Your task to perform on an android device: turn on priority inbox in the gmail app Image 0: 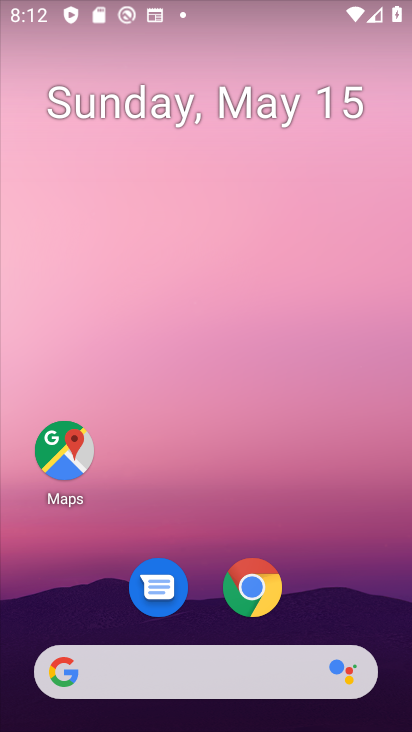
Step 0: drag from (199, 618) to (213, 120)
Your task to perform on an android device: turn on priority inbox in the gmail app Image 1: 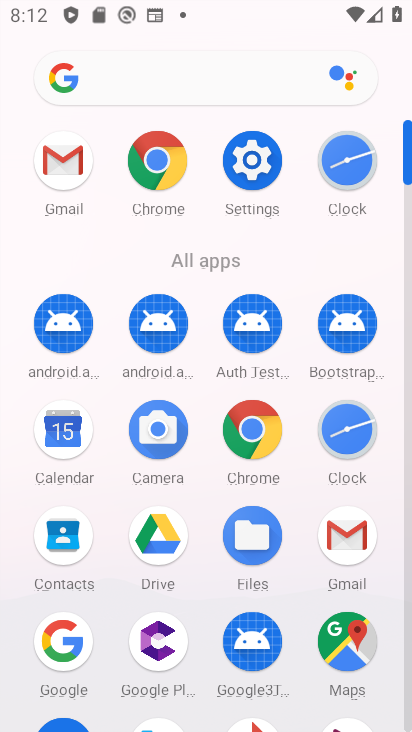
Step 1: click (348, 535)
Your task to perform on an android device: turn on priority inbox in the gmail app Image 2: 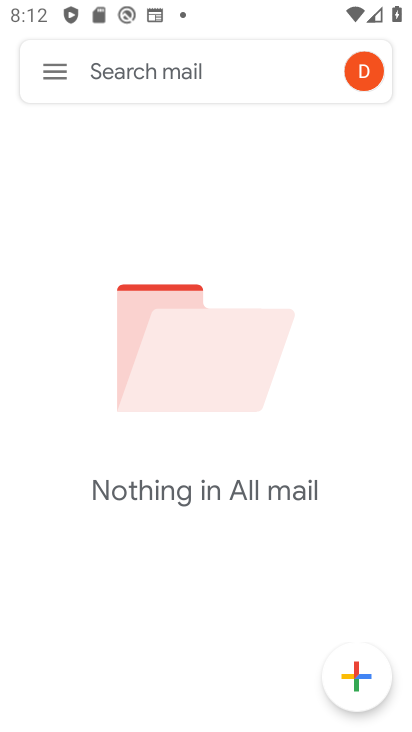
Step 2: click (48, 60)
Your task to perform on an android device: turn on priority inbox in the gmail app Image 3: 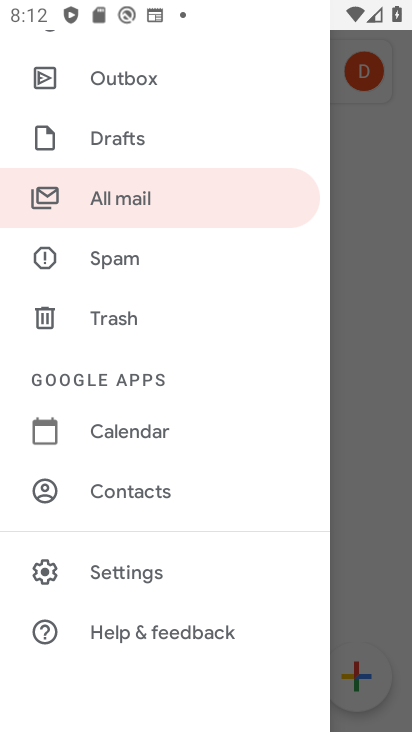
Step 3: click (124, 572)
Your task to perform on an android device: turn on priority inbox in the gmail app Image 4: 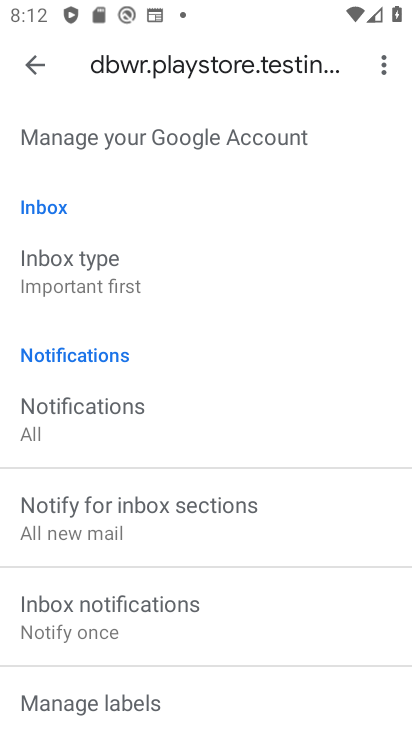
Step 4: drag from (140, 231) to (113, 482)
Your task to perform on an android device: turn on priority inbox in the gmail app Image 5: 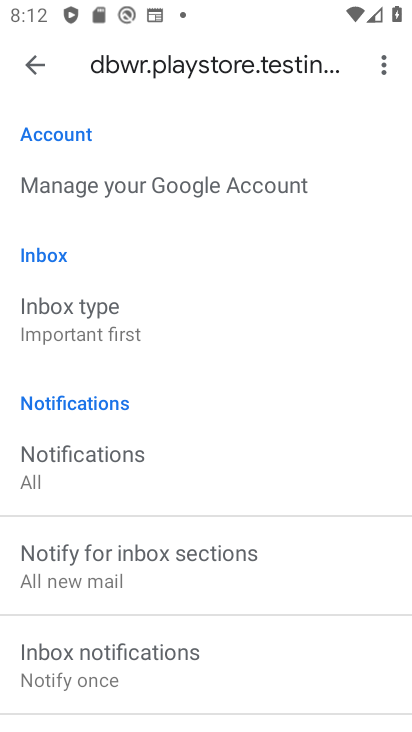
Step 5: click (103, 323)
Your task to perform on an android device: turn on priority inbox in the gmail app Image 6: 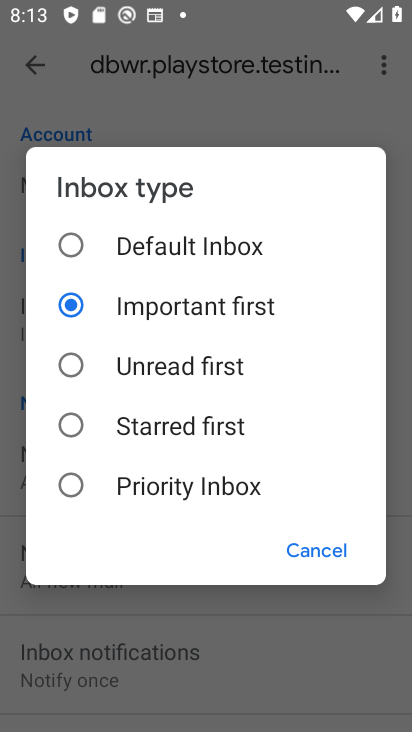
Step 6: click (113, 485)
Your task to perform on an android device: turn on priority inbox in the gmail app Image 7: 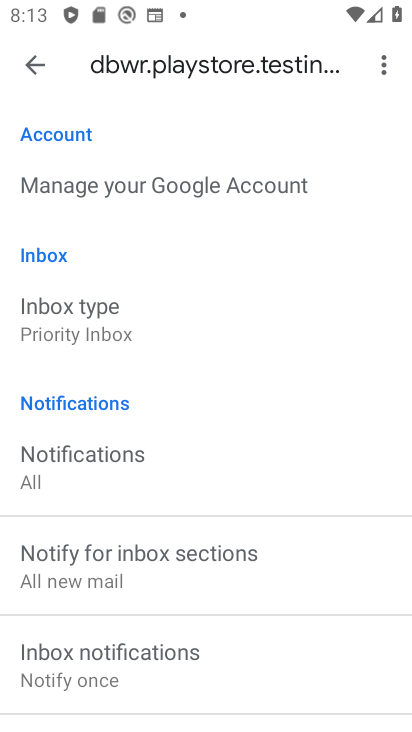
Step 7: task complete